Your task to perform on an android device: check data usage Image 0: 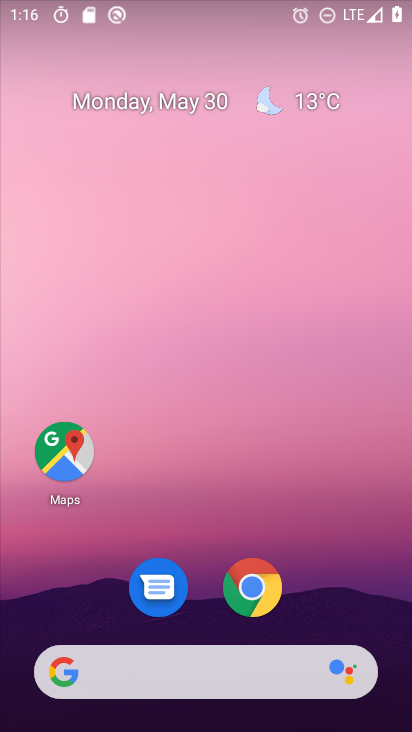
Step 0: drag from (350, 547) to (223, 8)
Your task to perform on an android device: check data usage Image 1: 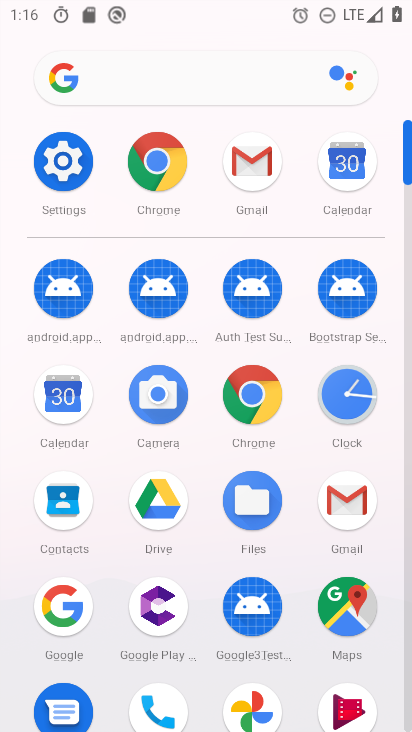
Step 1: click (75, 163)
Your task to perform on an android device: check data usage Image 2: 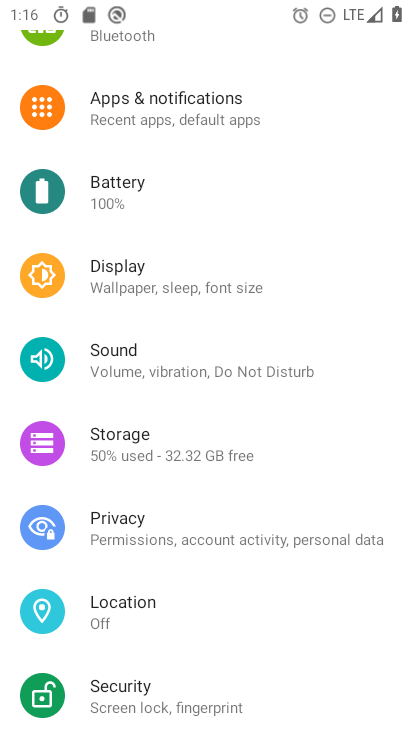
Step 2: drag from (233, 170) to (235, 395)
Your task to perform on an android device: check data usage Image 3: 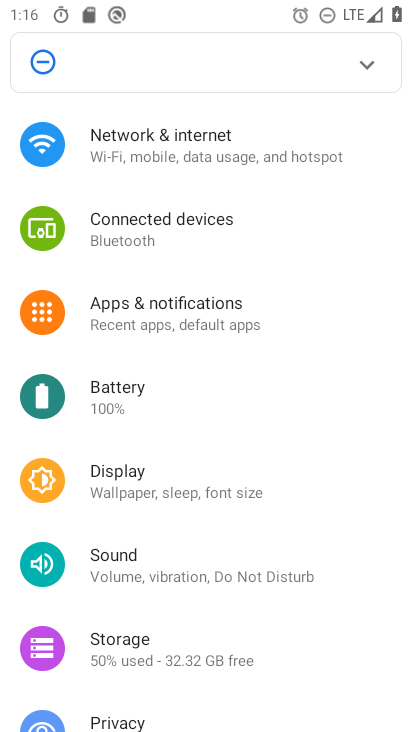
Step 3: click (159, 153)
Your task to perform on an android device: check data usage Image 4: 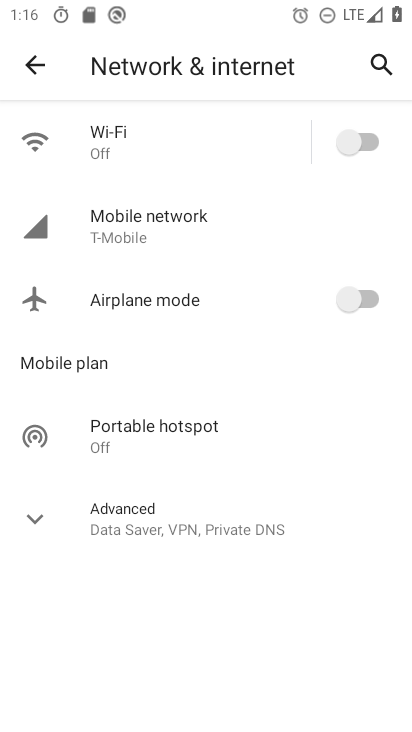
Step 4: click (152, 245)
Your task to perform on an android device: check data usage Image 5: 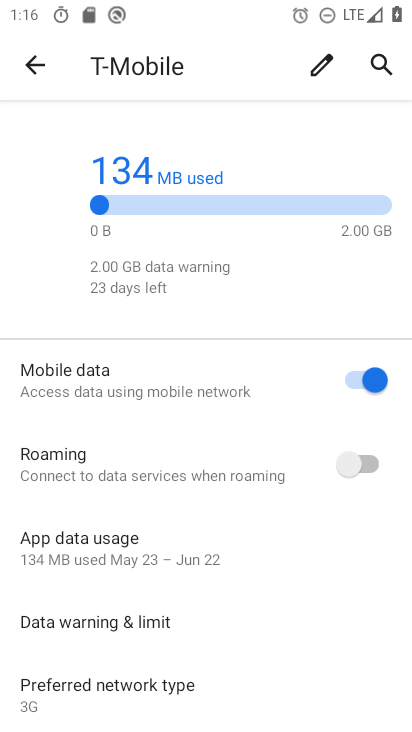
Step 5: task complete